Your task to perform on an android device: Show me recent news Image 0: 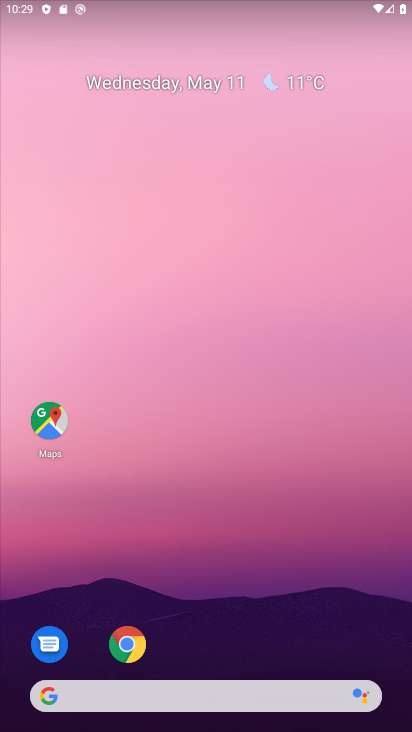
Step 0: click (124, 692)
Your task to perform on an android device: Show me recent news Image 1: 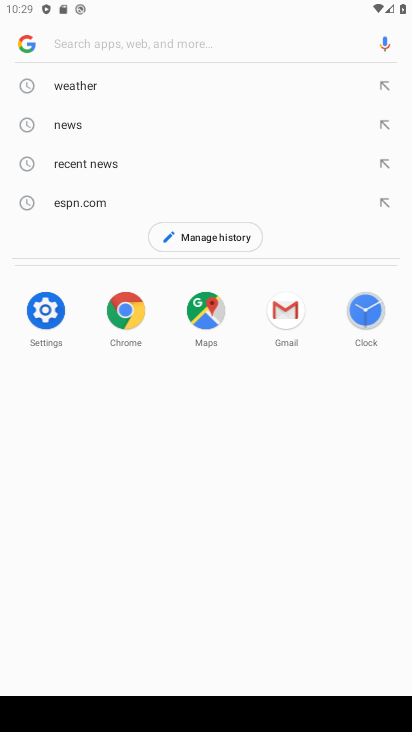
Step 1: click (94, 167)
Your task to perform on an android device: Show me recent news Image 2: 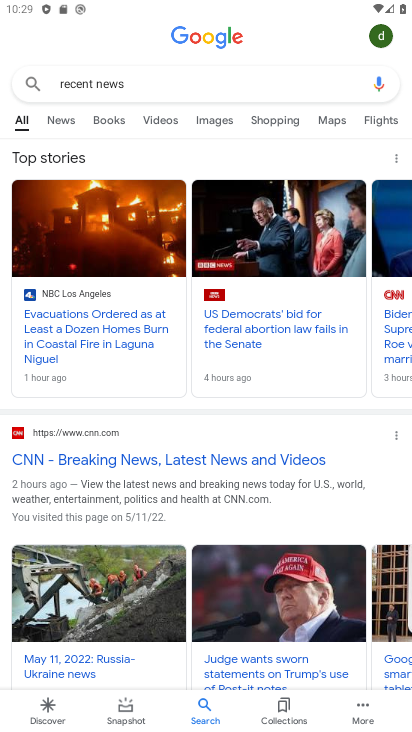
Step 2: click (75, 120)
Your task to perform on an android device: Show me recent news Image 3: 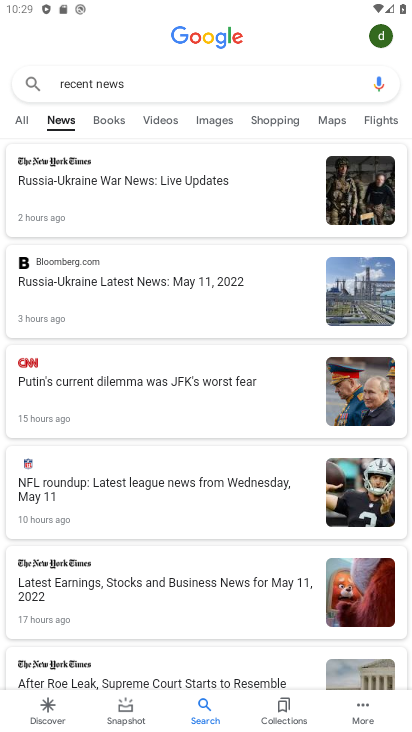
Step 3: click (91, 189)
Your task to perform on an android device: Show me recent news Image 4: 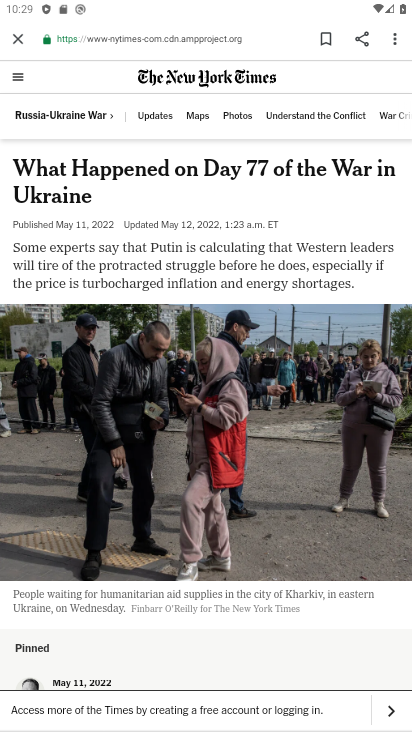
Step 4: task complete